Your task to perform on an android device: turn off wifi Image 0: 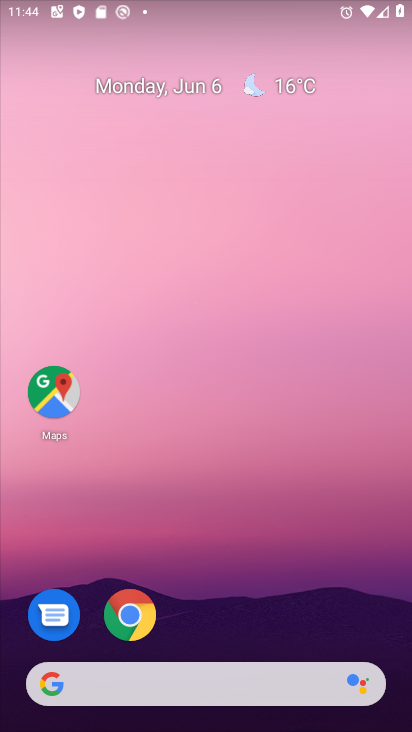
Step 0: press home button
Your task to perform on an android device: turn off wifi Image 1: 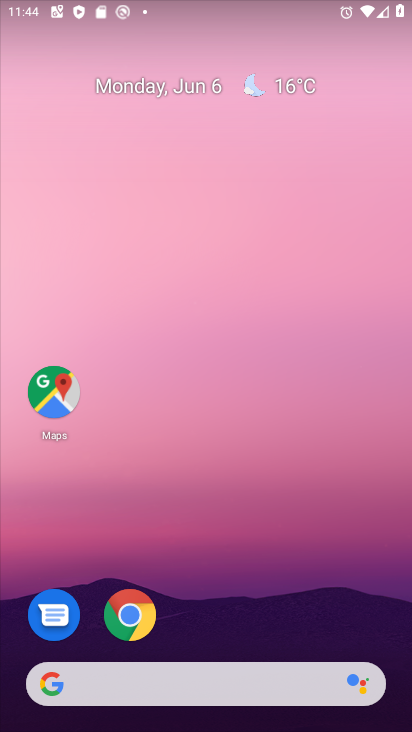
Step 1: drag from (212, 639) to (227, 91)
Your task to perform on an android device: turn off wifi Image 2: 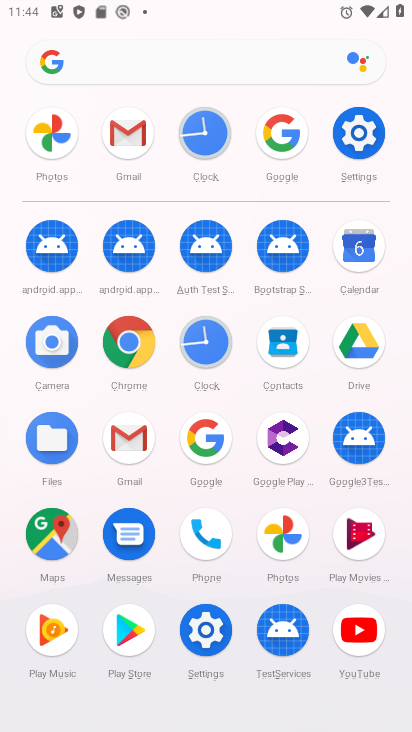
Step 2: drag from (226, 640) to (230, 10)
Your task to perform on an android device: turn off wifi Image 3: 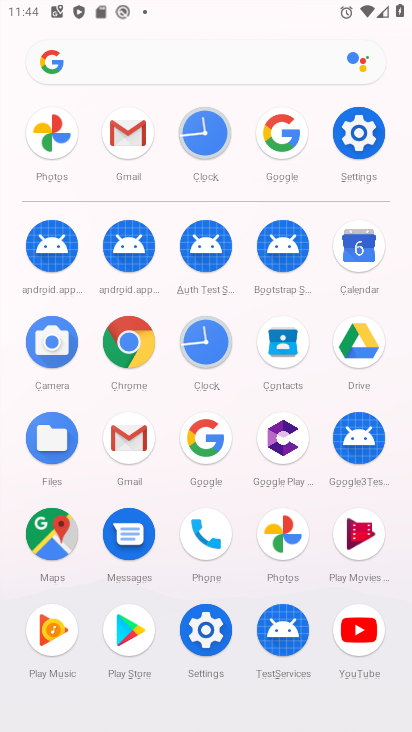
Step 3: drag from (225, 635) to (193, 136)
Your task to perform on an android device: turn off wifi Image 4: 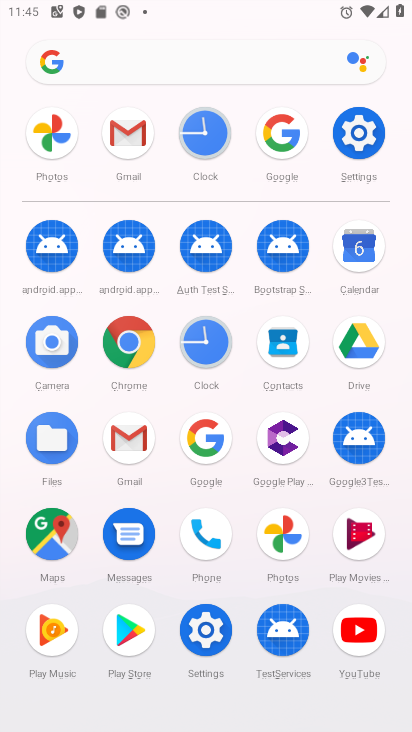
Step 4: drag from (189, 5) to (197, 361)
Your task to perform on an android device: turn off wifi Image 5: 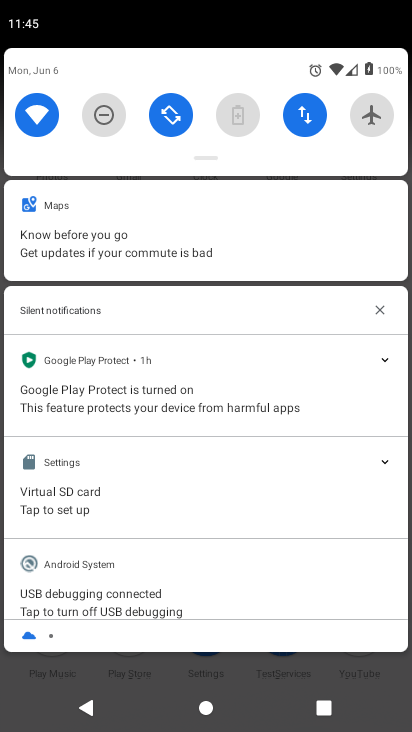
Step 5: click (41, 119)
Your task to perform on an android device: turn off wifi Image 6: 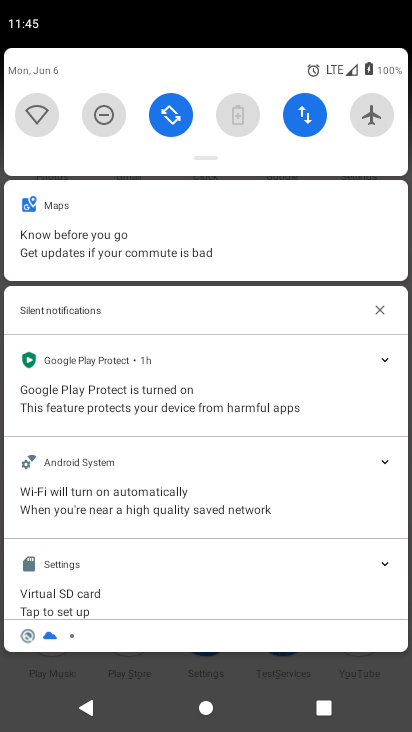
Step 6: task complete